Your task to perform on an android device: Open eBay Image 0: 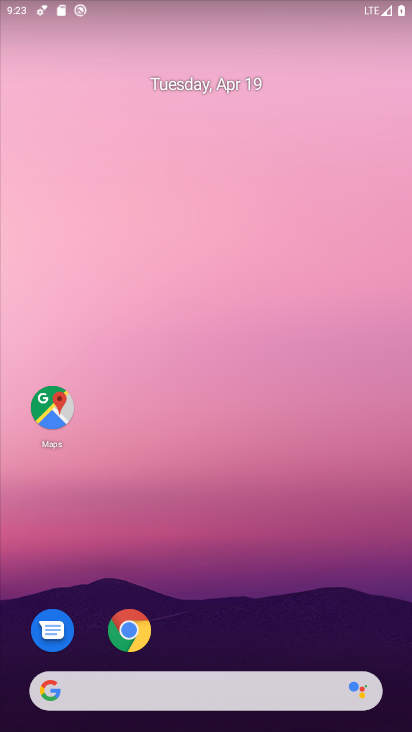
Step 0: click (134, 637)
Your task to perform on an android device: Open eBay Image 1: 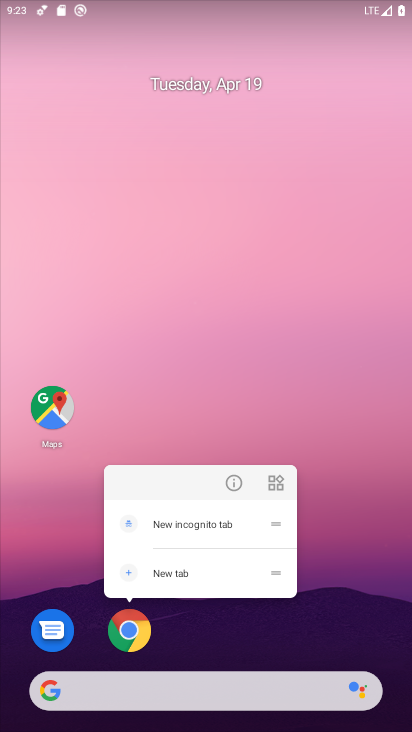
Step 1: click (134, 637)
Your task to perform on an android device: Open eBay Image 2: 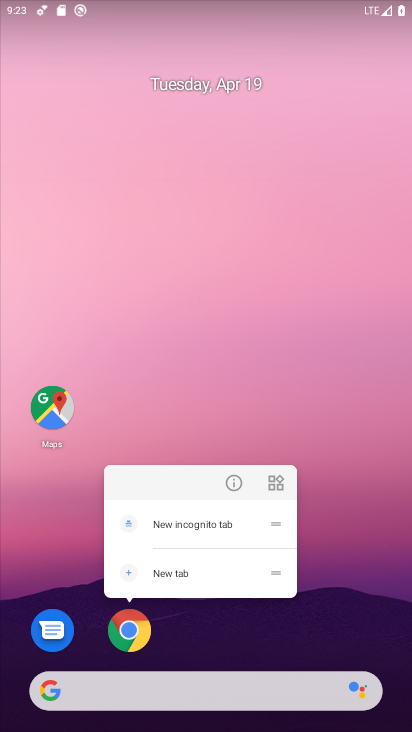
Step 2: click (121, 643)
Your task to perform on an android device: Open eBay Image 3: 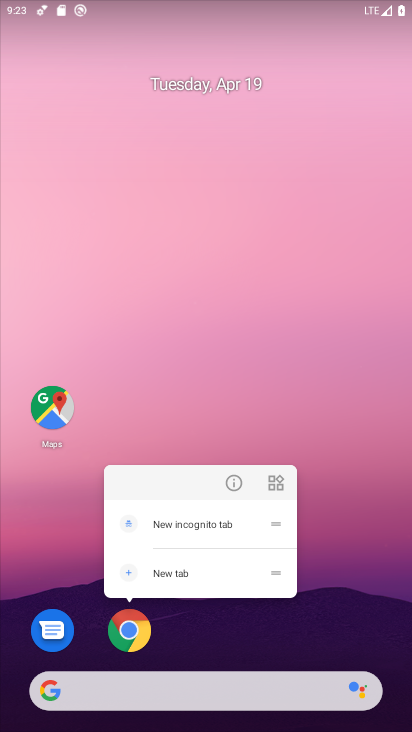
Step 3: click (121, 643)
Your task to perform on an android device: Open eBay Image 4: 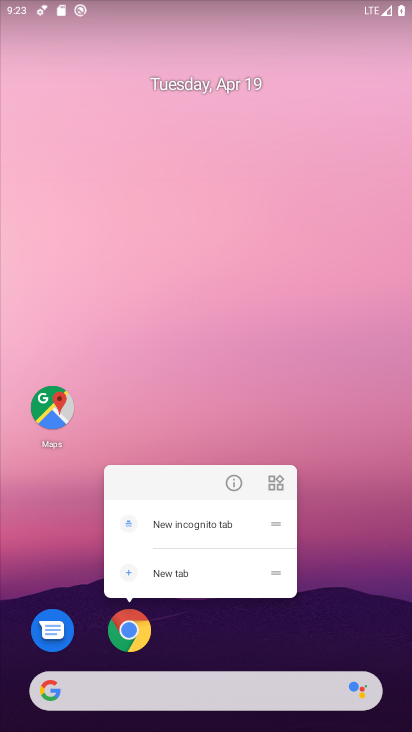
Step 4: click (135, 629)
Your task to perform on an android device: Open eBay Image 5: 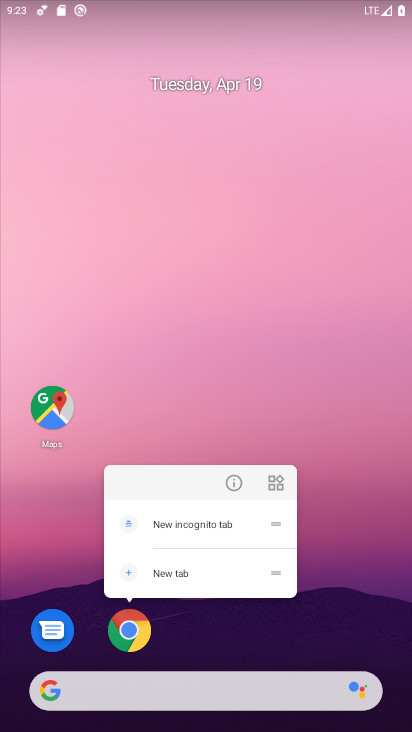
Step 5: click (135, 629)
Your task to perform on an android device: Open eBay Image 6: 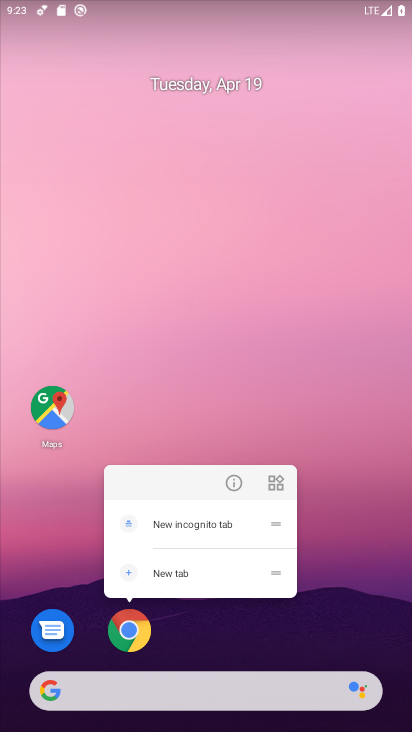
Step 6: click (135, 629)
Your task to perform on an android device: Open eBay Image 7: 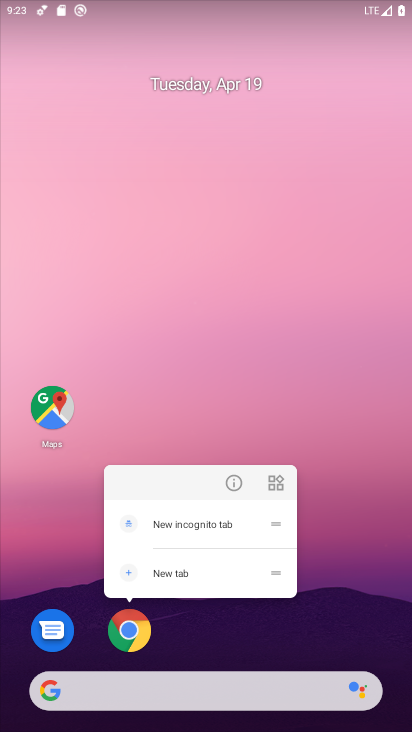
Step 7: click (135, 629)
Your task to perform on an android device: Open eBay Image 8: 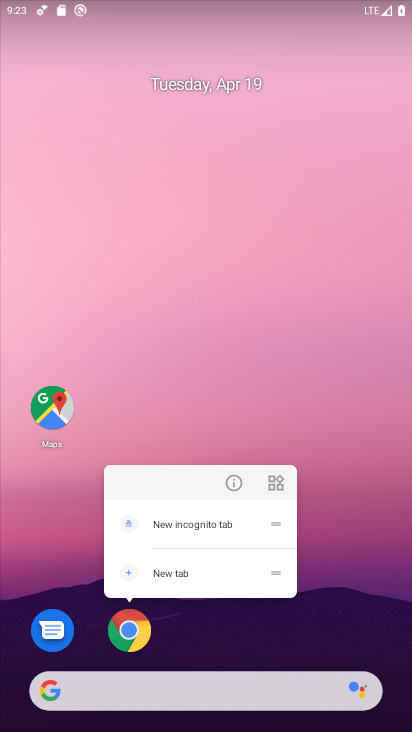
Step 8: click (126, 639)
Your task to perform on an android device: Open eBay Image 9: 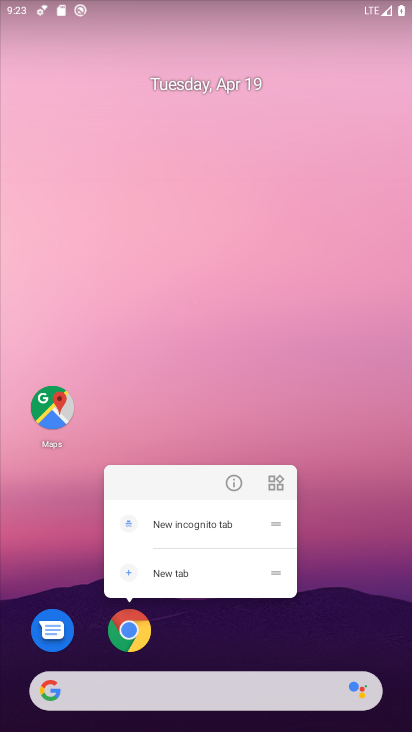
Step 9: click (125, 640)
Your task to perform on an android device: Open eBay Image 10: 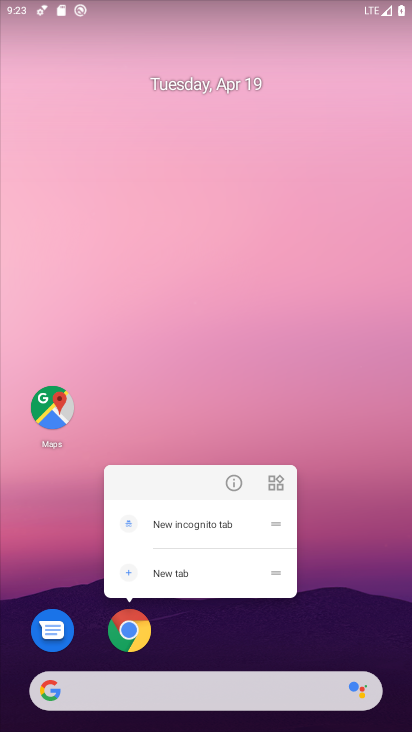
Step 10: click (125, 640)
Your task to perform on an android device: Open eBay Image 11: 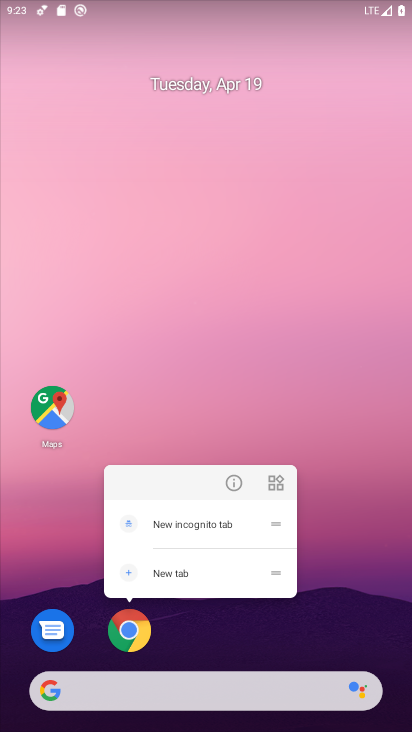
Step 11: click (124, 638)
Your task to perform on an android device: Open eBay Image 12: 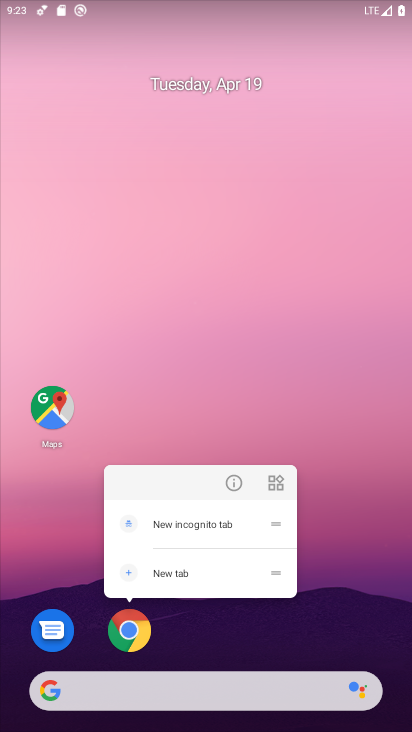
Step 12: click (137, 649)
Your task to perform on an android device: Open eBay Image 13: 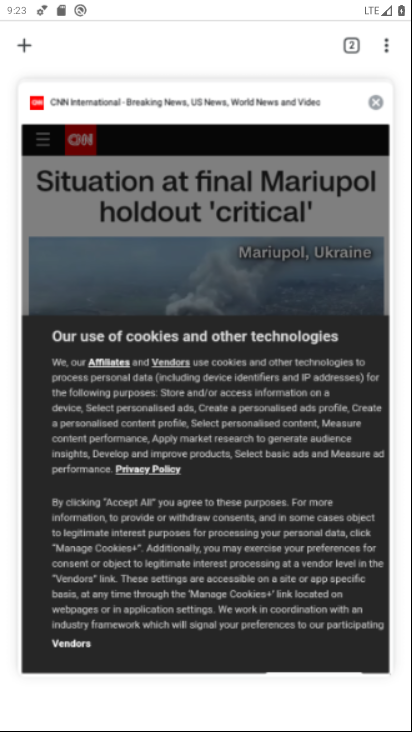
Step 13: click (263, 430)
Your task to perform on an android device: Open eBay Image 14: 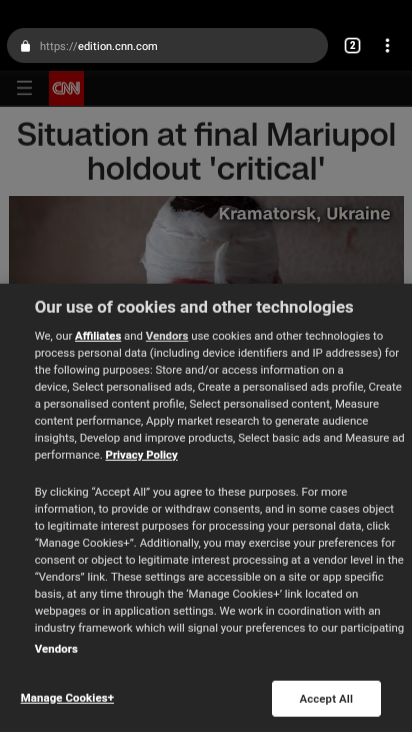
Step 14: click (35, 41)
Your task to perform on an android device: Open eBay Image 15: 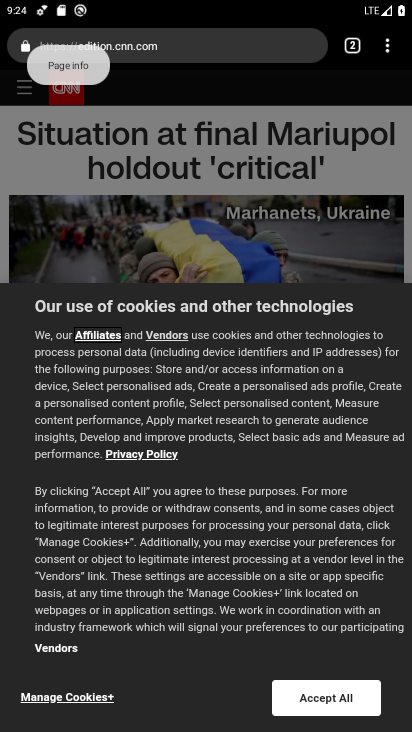
Step 15: drag from (357, 115) to (347, 237)
Your task to perform on an android device: Open eBay Image 16: 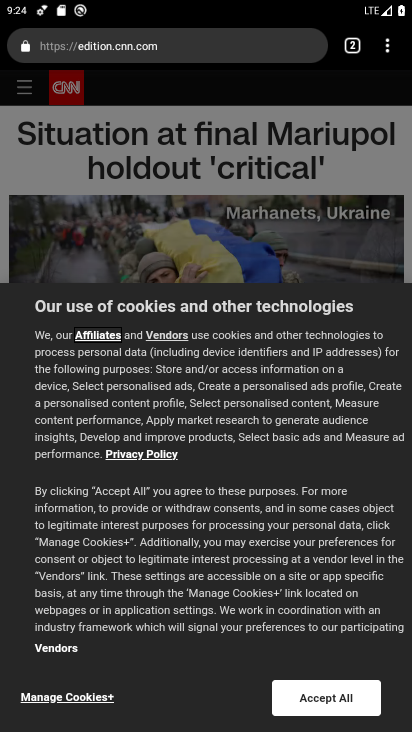
Step 16: click (227, 139)
Your task to perform on an android device: Open eBay Image 17: 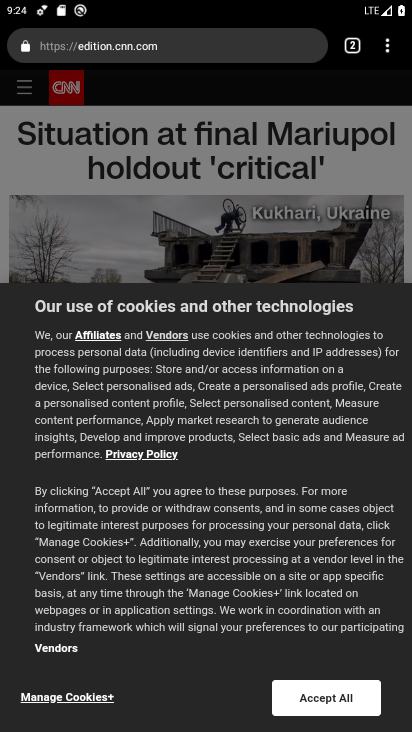
Step 17: drag from (347, 50) to (338, 196)
Your task to perform on an android device: Open eBay Image 18: 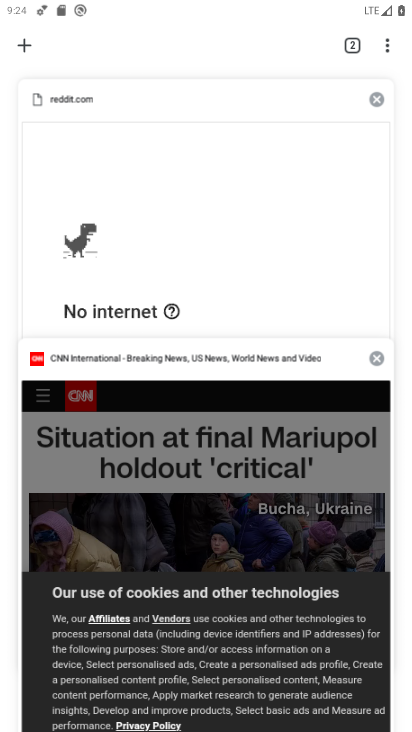
Step 18: click (18, 39)
Your task to perform on an android device: Open eBay Image 19: 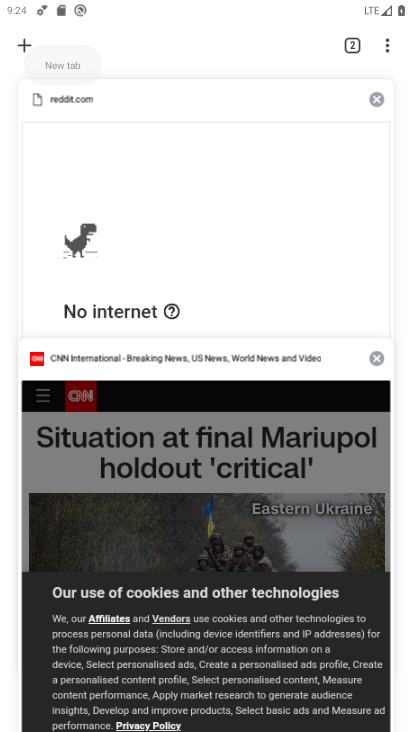
Step 19: click (29, 49)
Your task to perform on an android device: Open eBay Image 20: 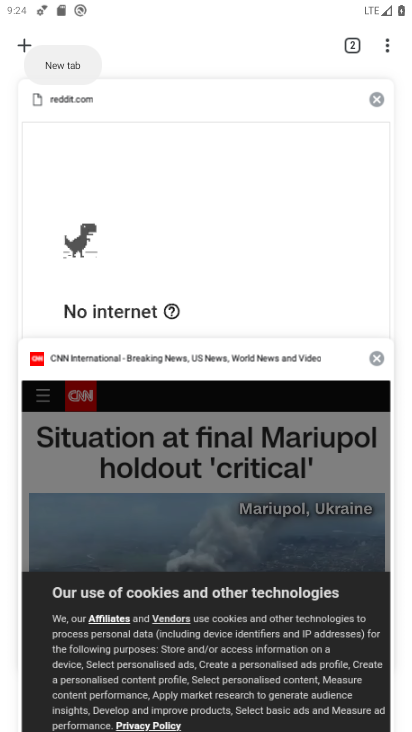
Step 20: click (29, 49)
Your task to perform on an android device: Open eBay Image 21: 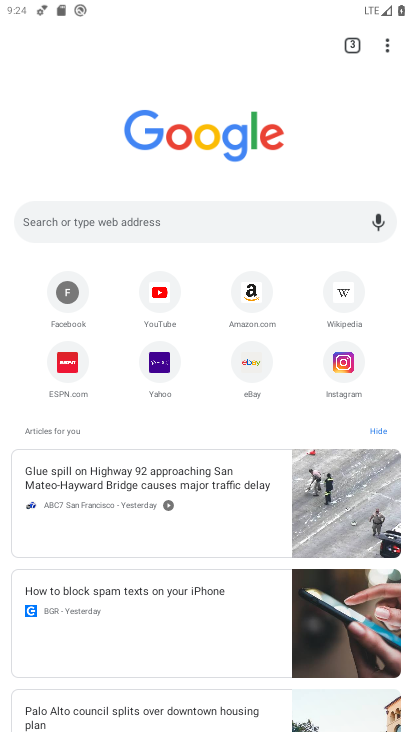
Step 21: click (252, 357)
Your task to perform on an android device: Open eBay Image 22: 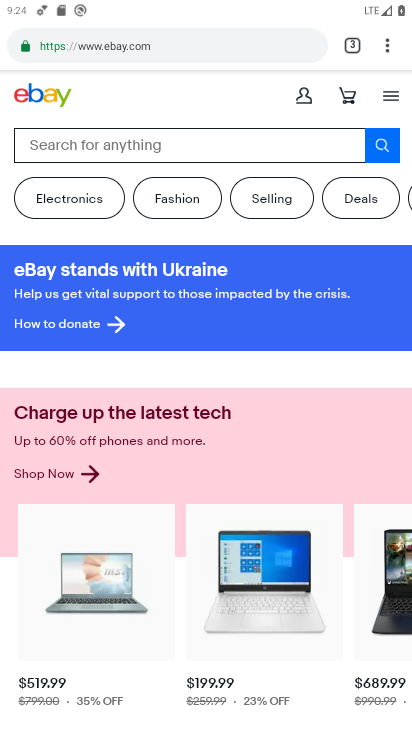
Step 22: task complete